Your task to perform on an android device: Toggle the flashlight Image 0: 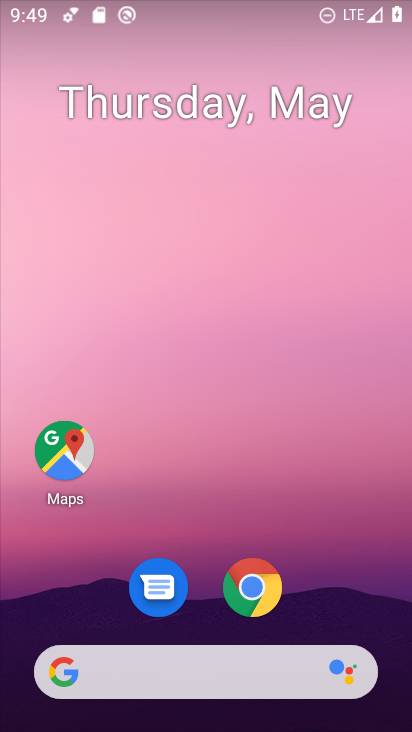
Step 0: drag from (174, 4) to (193, 630)
Your task to perform on an android device: Toggle the flashlight Image 1: 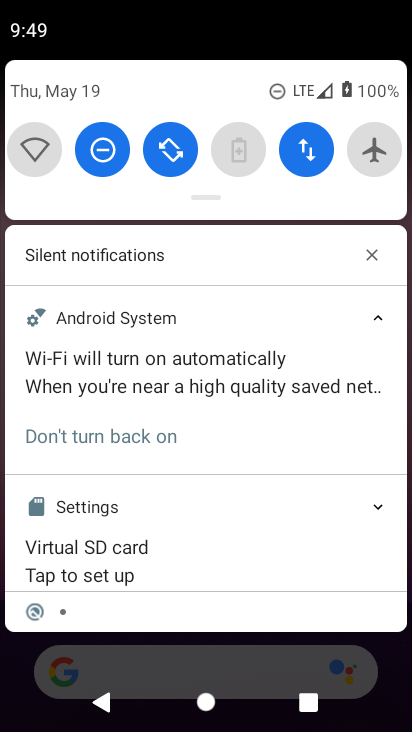
Step 1: task complete